Your task to perform on an android device: Open battery settings Image 0: 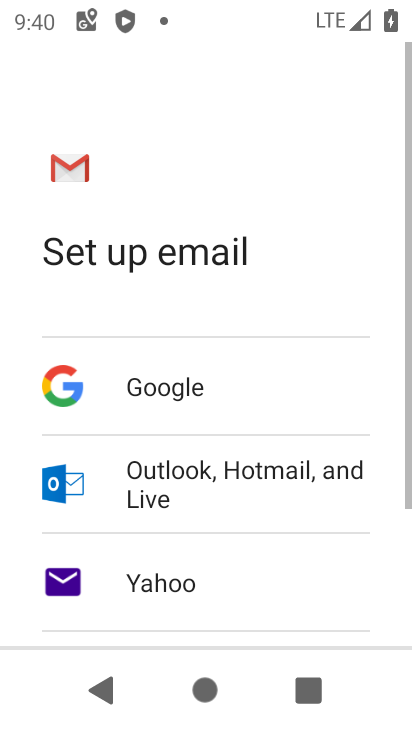
Step 0: press home button
Your task to perform on an android device: Open battery settings Image 1: 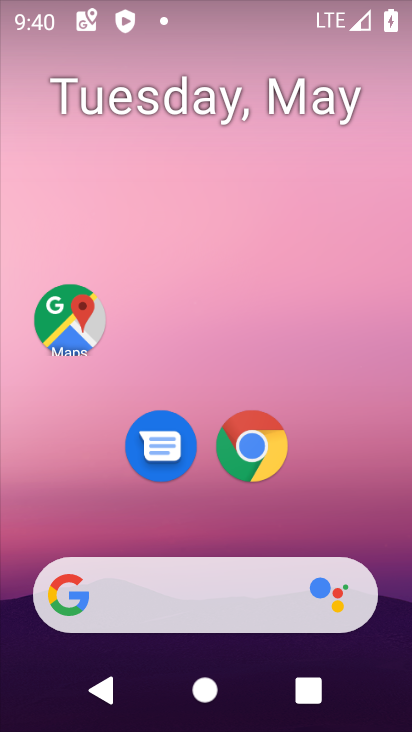
Step 1: drag from (217, 566) to (194, 192)
Your task to perform on an android device: Open battery settings Image 2: 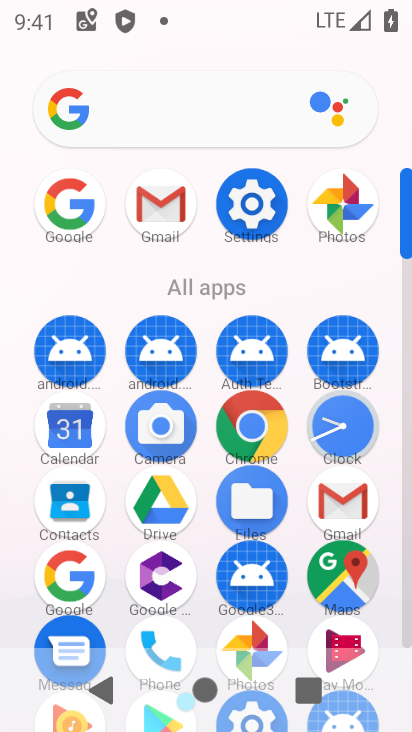
Step 2: click (259, 206)
Your task to perform on an android device: Open battery settings Image 3: 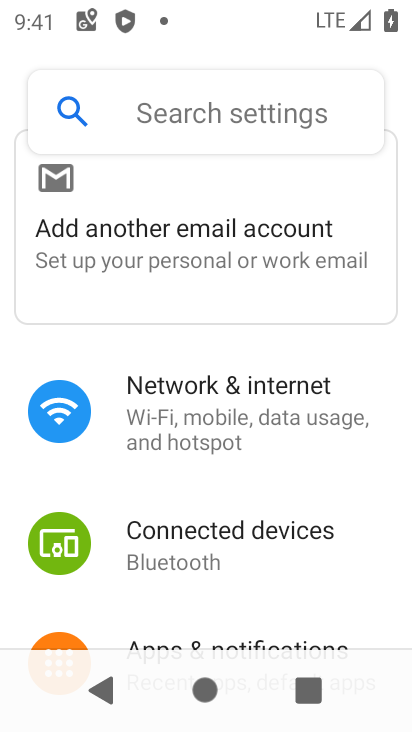
Step 3: drag from (174, 528) to (139, 144)
Your task to perform on an android device: Open battery settings Image 4: 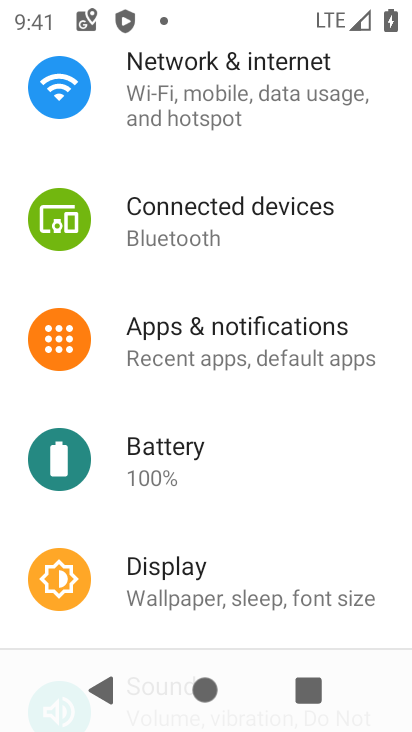
Step 4: click (156, 461)
Your task to perform on an android device: Open battery settings Image 5: 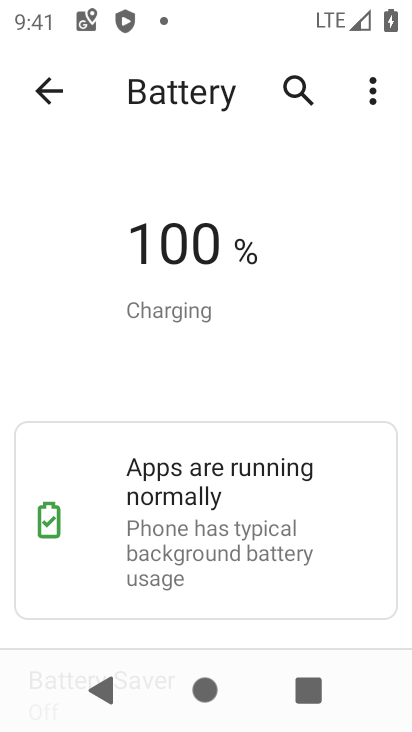
Step 5: task complete